Your task to perform on an android device: Open Maps and search for coffee Image 0: 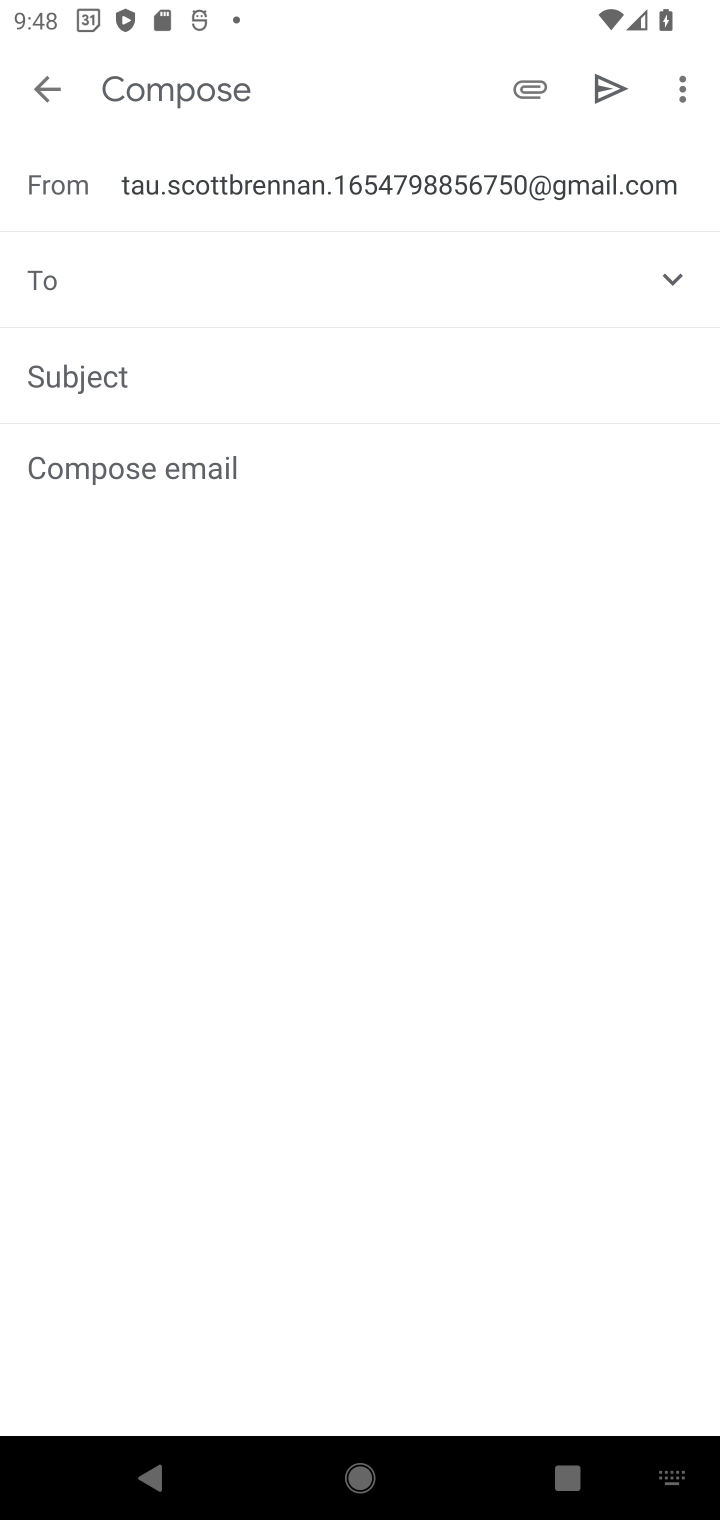
Step 0: press home button
Your task to perform on an android device: Open Maps and search for coffee Image 1: 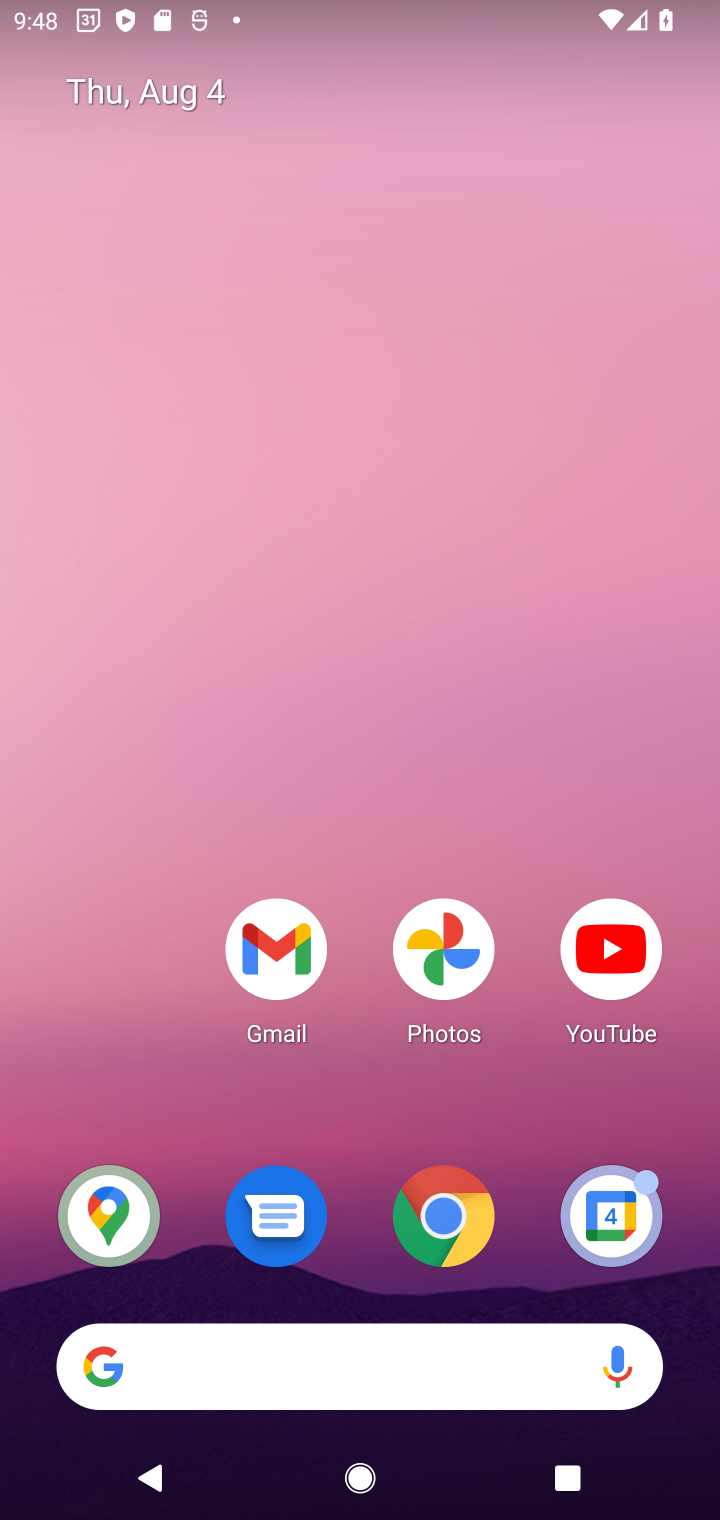
Step 1: drag from (253, 1401) to (481, 114)
Your task to perform on an android device: Open Maps and search for coffee Image 2: 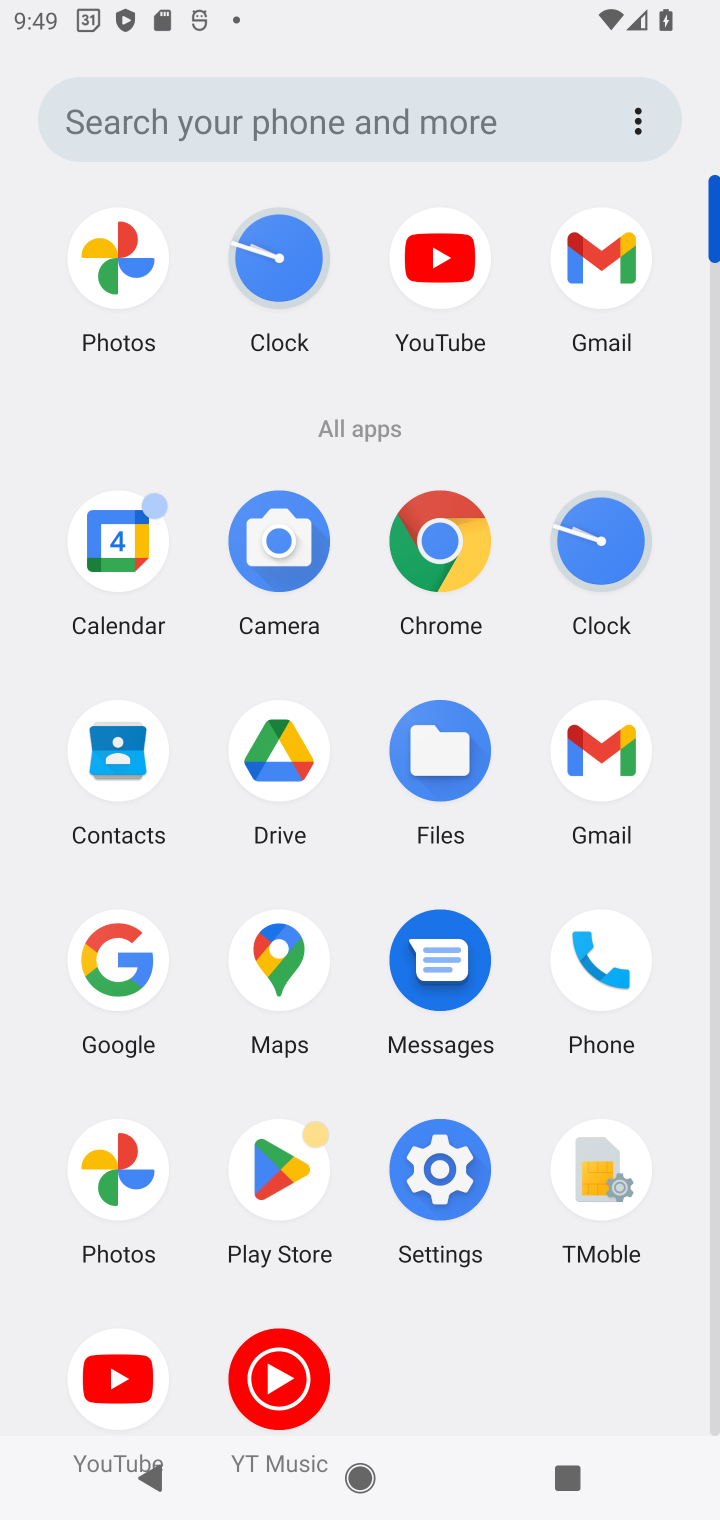
Step 2: click (280, 949)
Your task to perform on an android device: Open Maps and search for coffee Image 3: 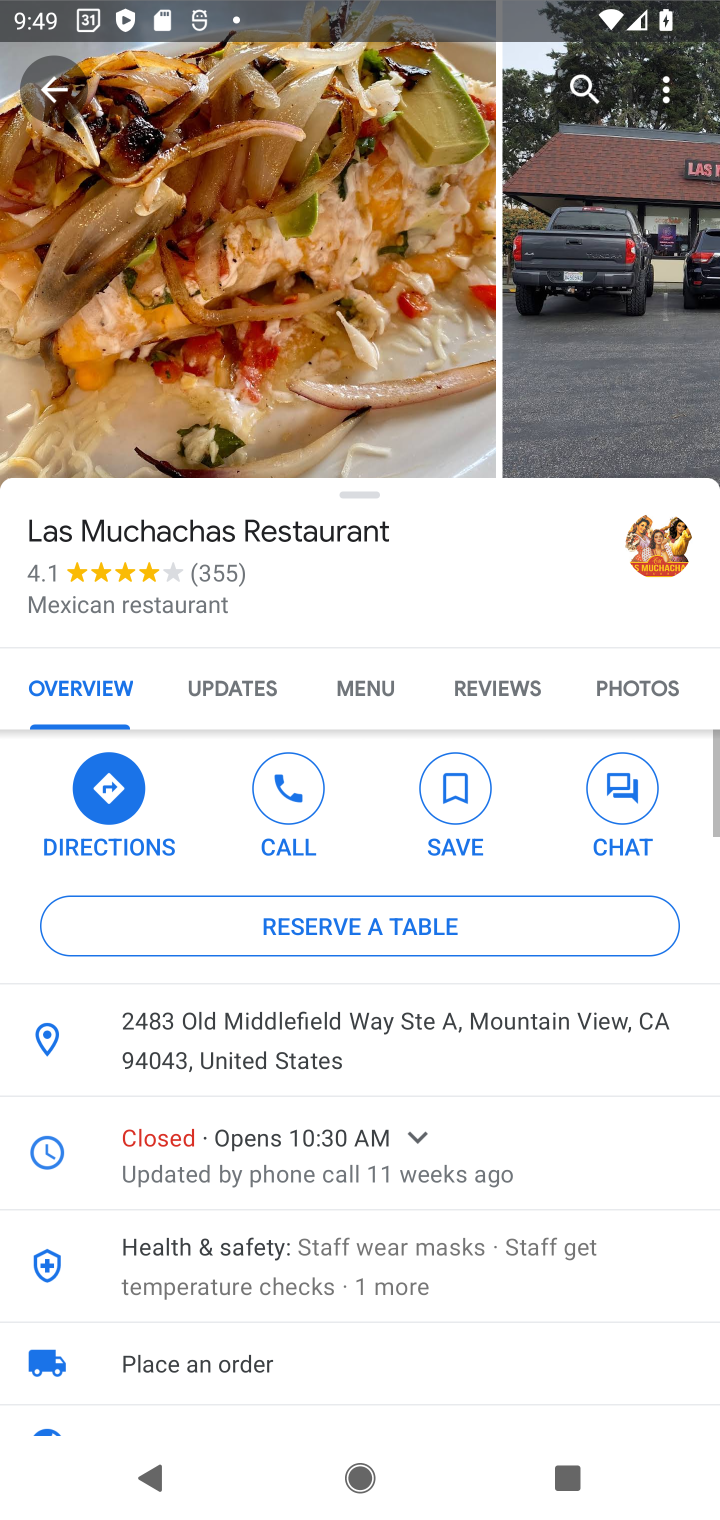
Step 3: press back button
Your task to perform on an android device: Open Maps and search for coffee Image 4: 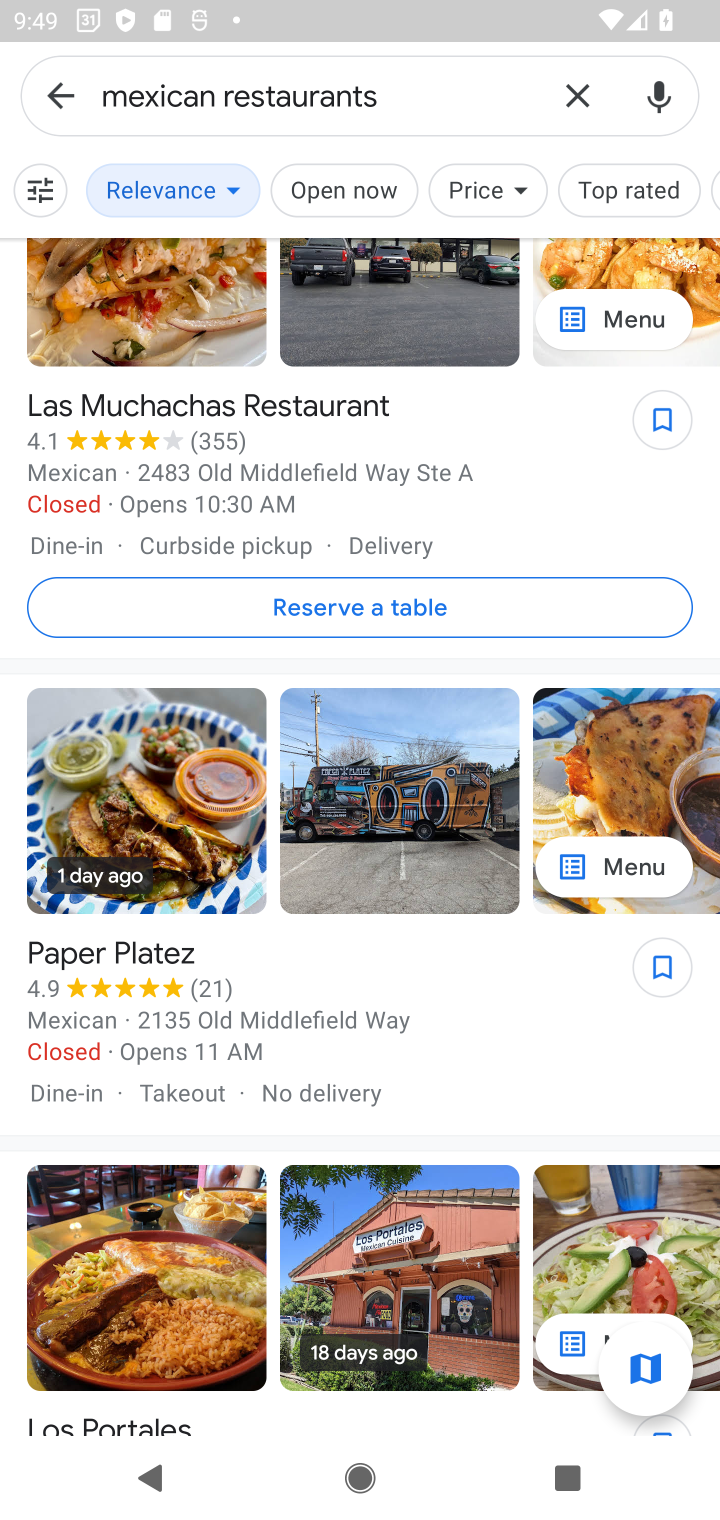
Step 4: click (580, 100)
Your task to perform on an android device: Open Maps and search for coffee Image 5: 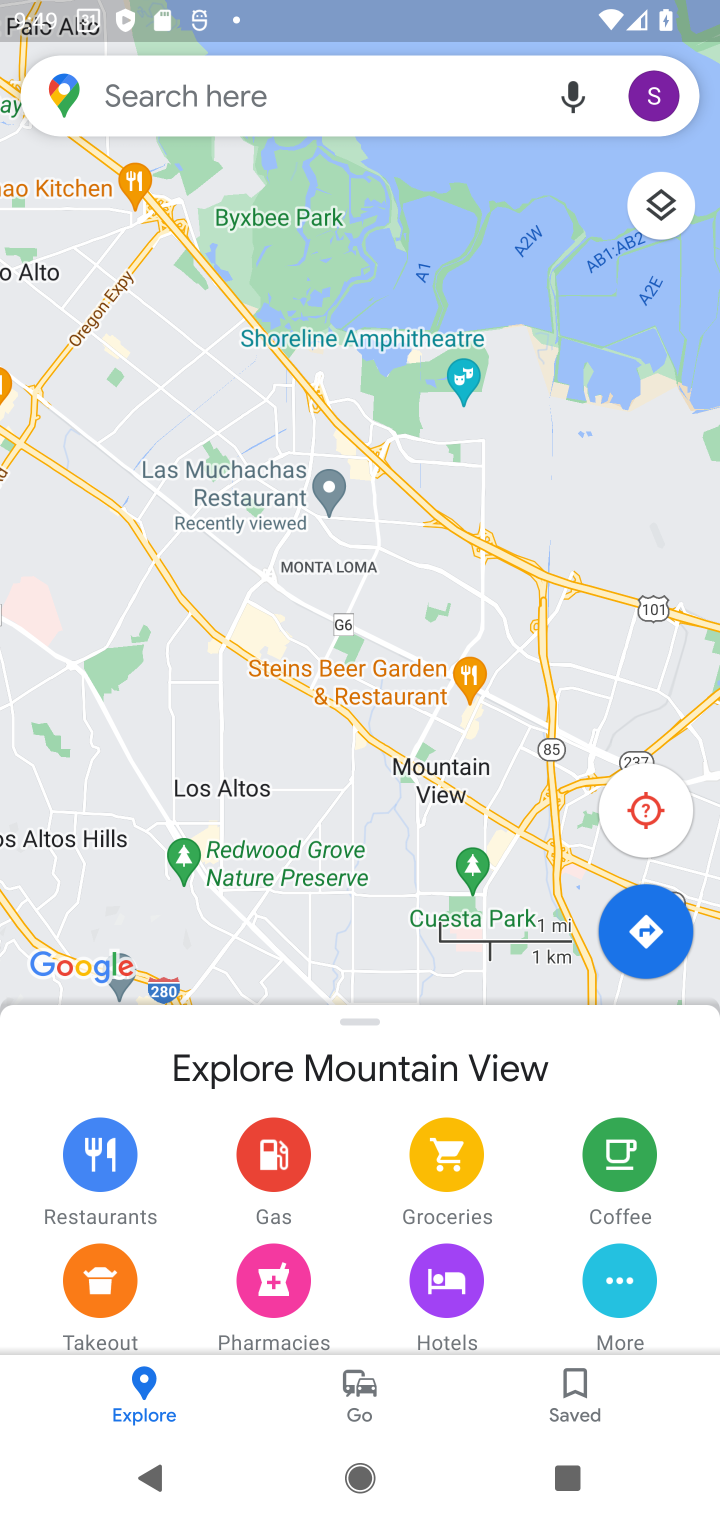
Step 5: click (393, 116)
Your task to perform on an android device: Open Maps and search for coffee Image 6: 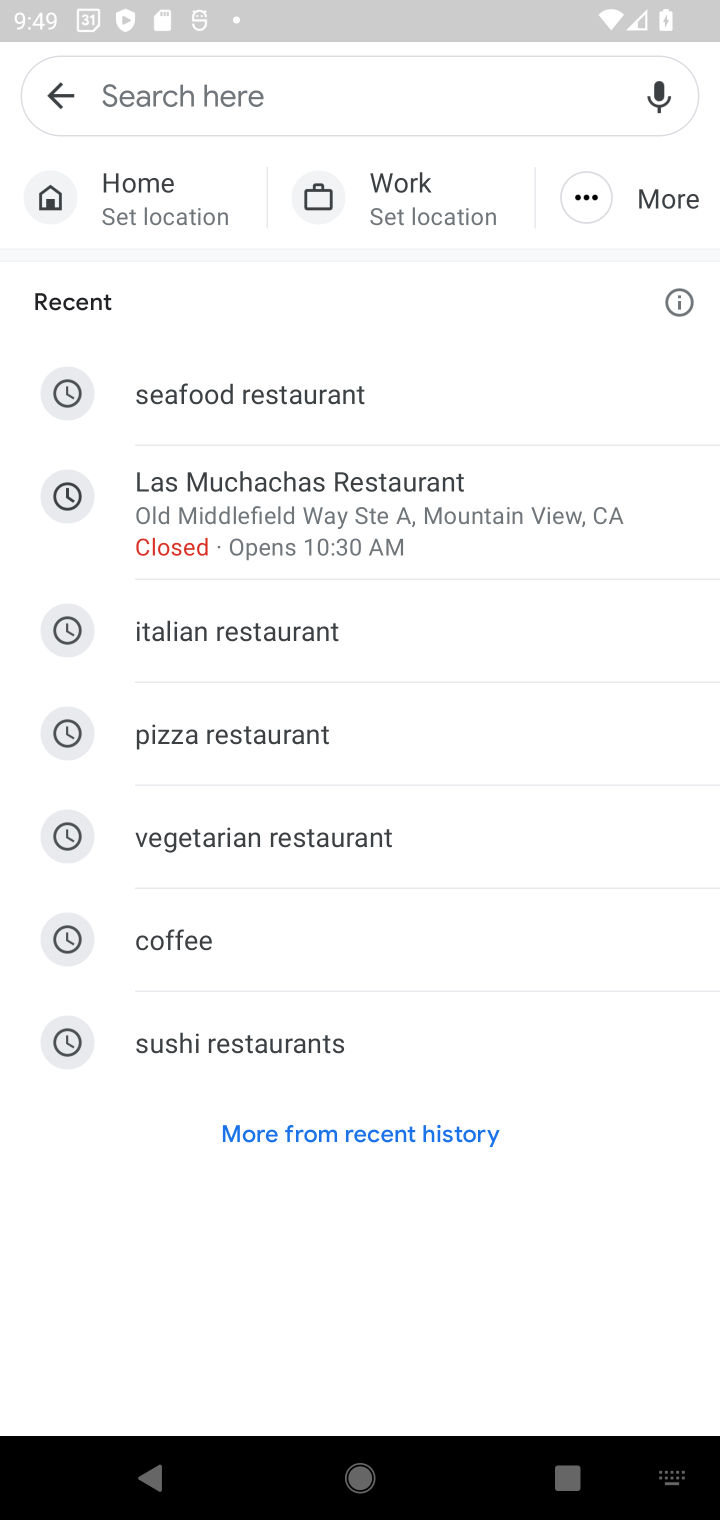
Step 6: type "coffee"
Your task to perform on an android device: Open Maps and search for coffee Image 7: 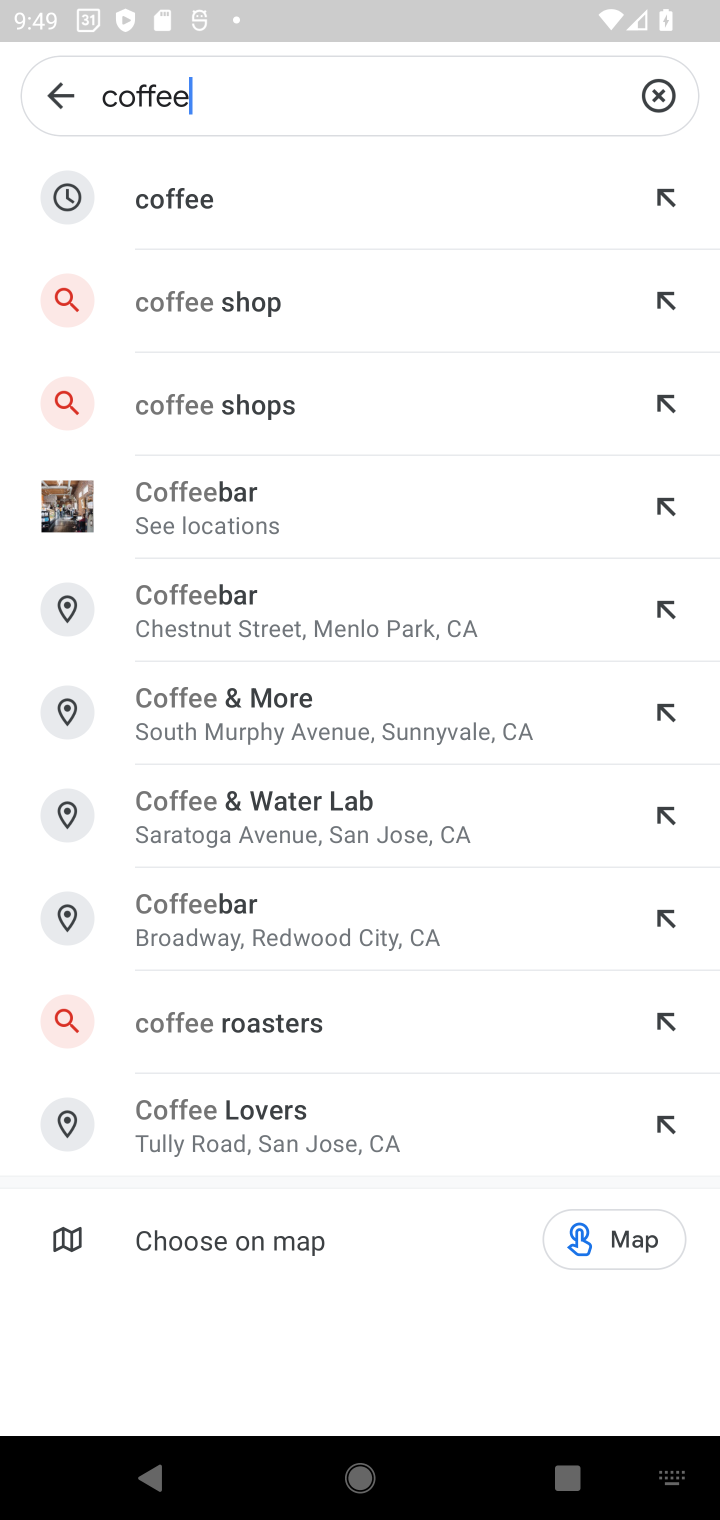
Step 7: click (170, 197)
Your task to perform on an android device: Open Maps and search for coffee Image 8: 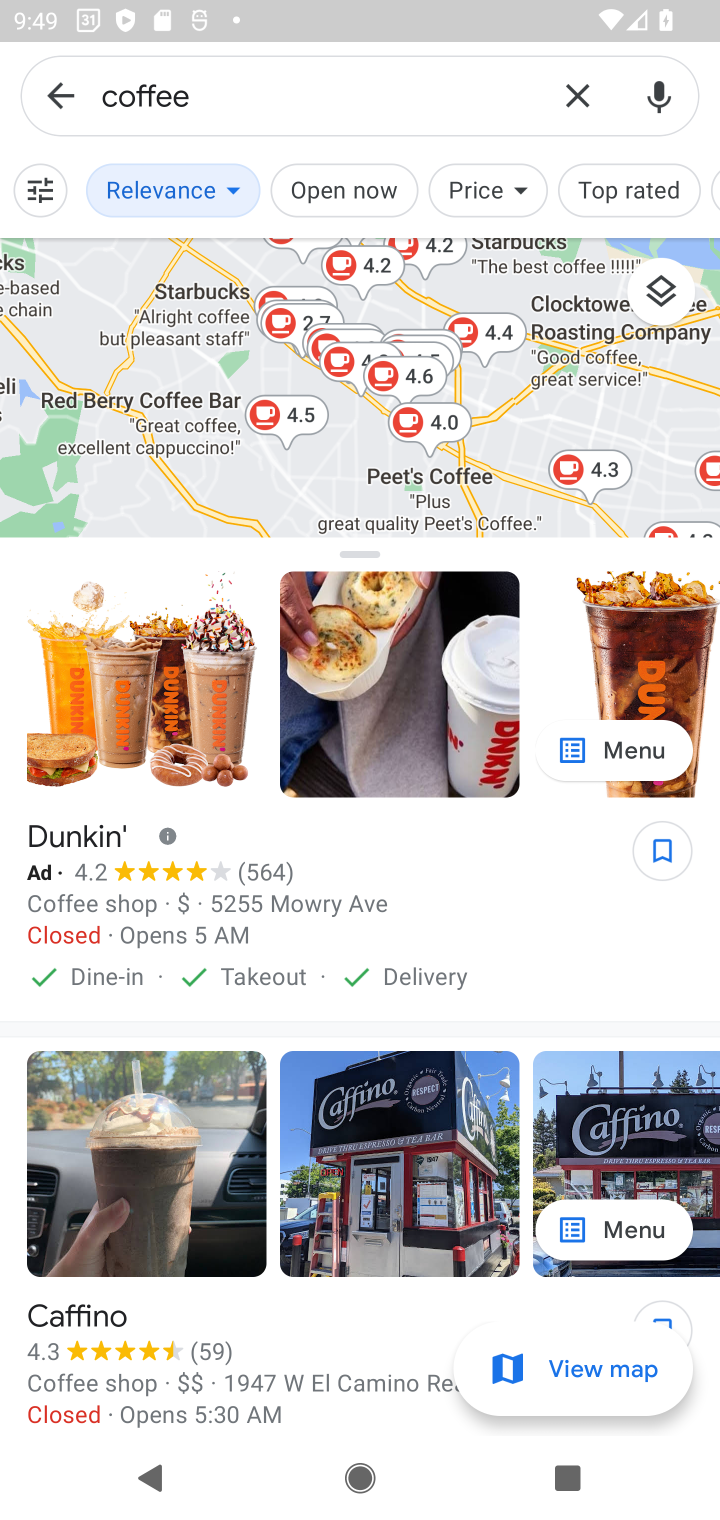
Step 8: task complete